Your task to perform on an android device: Open CNN.com Image 0: 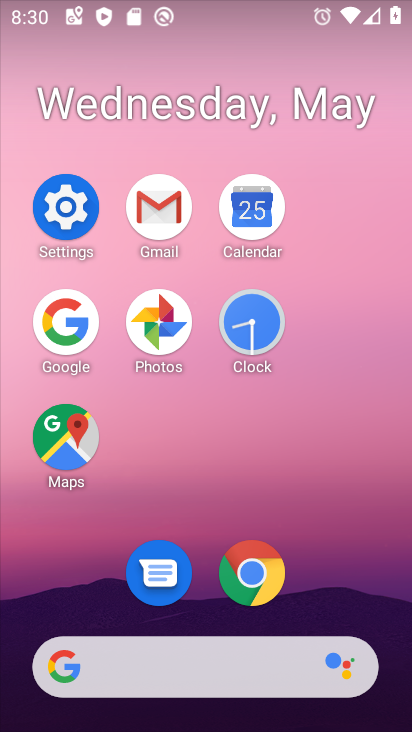
Step 0: click (261, 570)
Your task to perform on an android device: Open CNN.com Image 1: 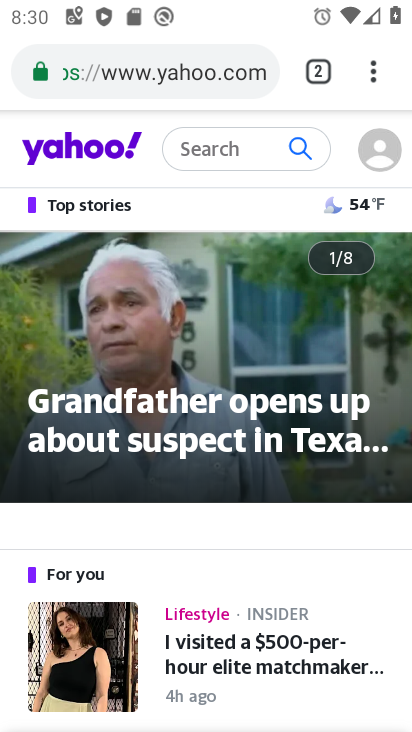
Step 1: click (331, 67)
Your task to perform on an android device: Open CNN.com Image 2: 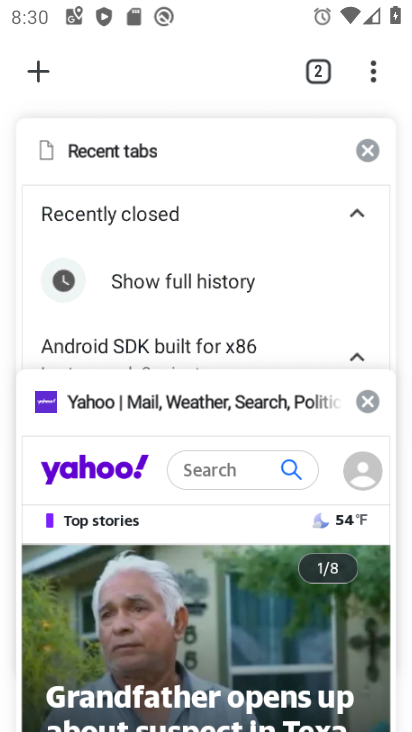
Step 2: click (48, 79)
Your task to perform on an android device: Open CNN.com Image 3: 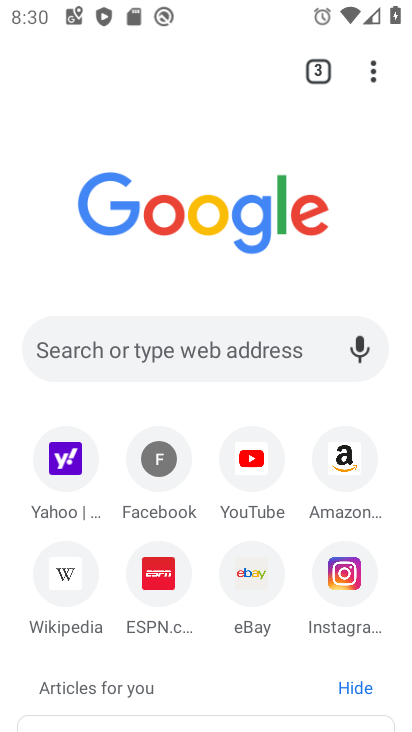
Step 3: click (214, 349)
Your task to perform on an android device: Open CNN.com Image 4: 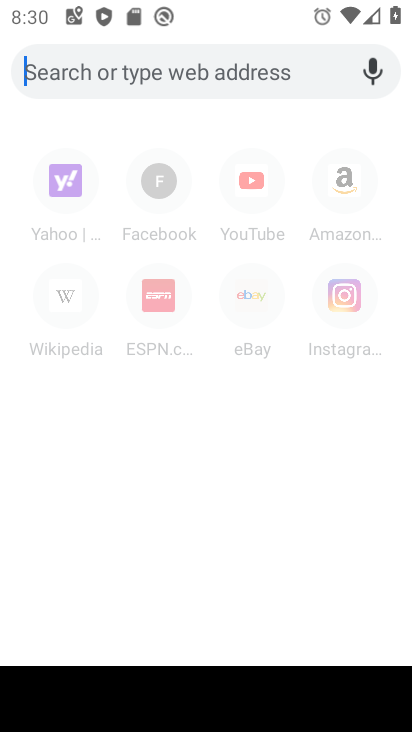
Step 4: type "cnn"
Your task to perform on an android device: Open CNN.com Image 5: 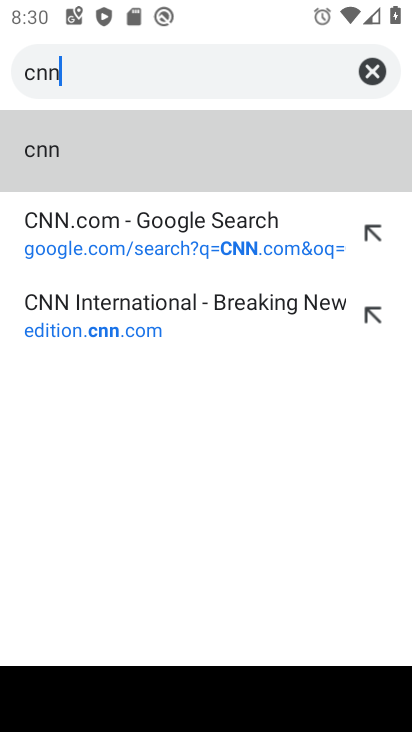
Step 5: click (78, 245)
Your task to perform on an android device: Open CNN.com Image 6: 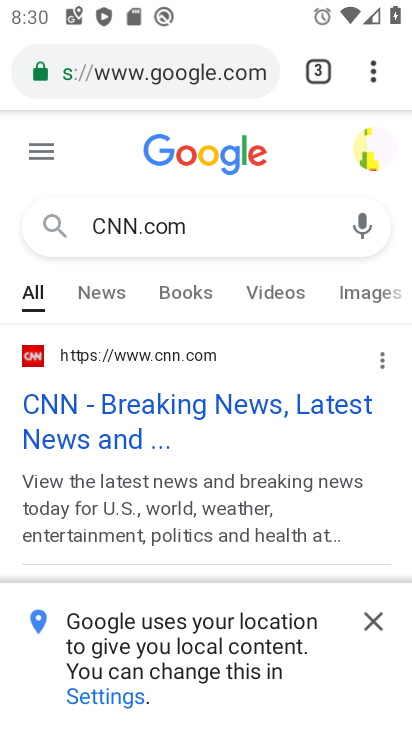
Step 6: click (87, 403)
Your task to perform on an android device: Open CNN.com Image 7: 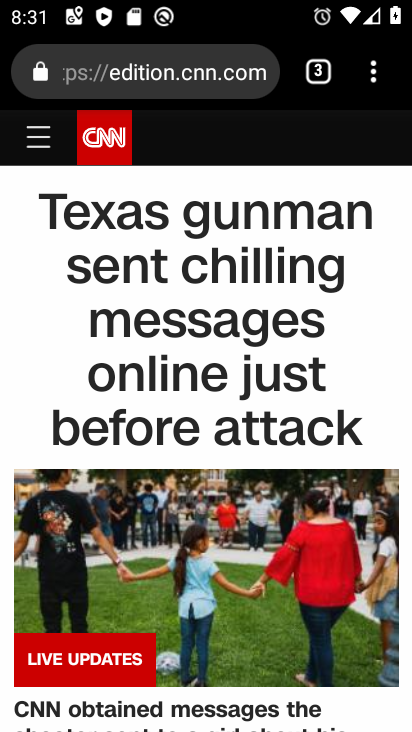
Step 7: task complete